Your task to perform on an android device: make emails show in primary in the gmail app Image 0: 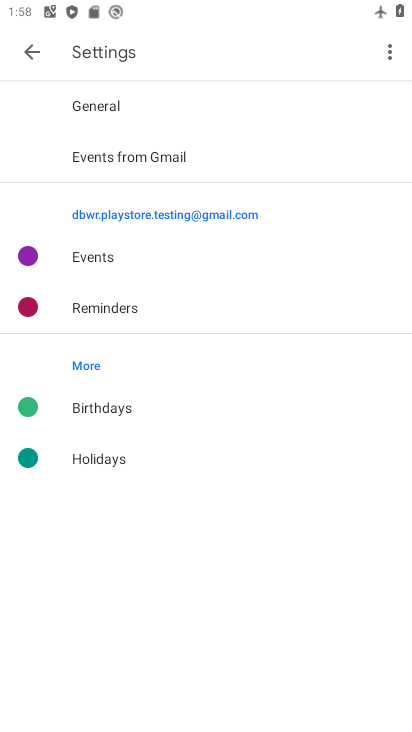
Step 0: press home button
Your task to perform on an android device: make emails show in primary in the gmail app Image 1: 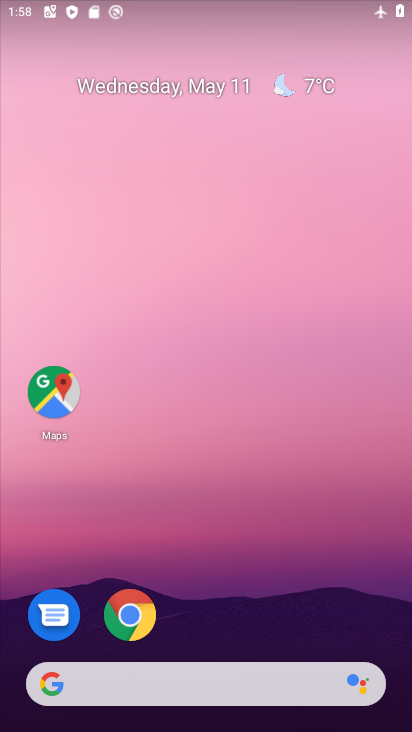
Step 1: drag from (292, 605) to (324, 128)
Your task to perform on an android device: make emails show in primary in the gmail app Image 2: 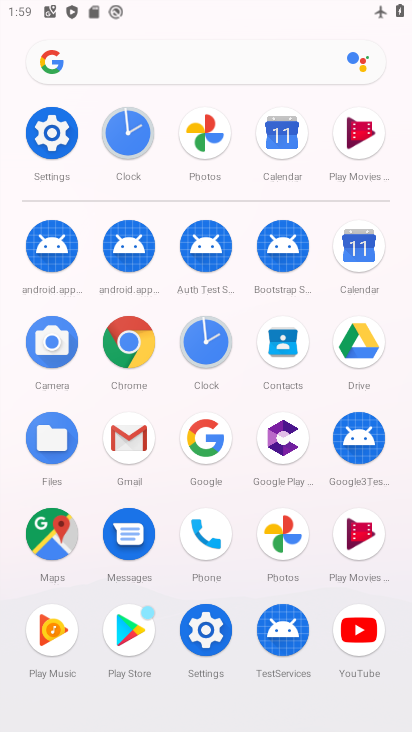
Step 2: click (119, 444)
Your task to perform on an android device: make emails show in primary in the gmail app Image 3: 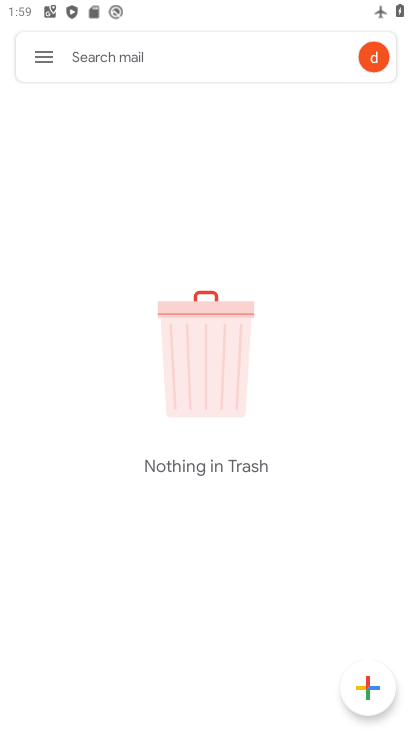
Step 3: click (43, 54)
Your task to perform on an android device: make emails show in primary in the gmail app Image 4: 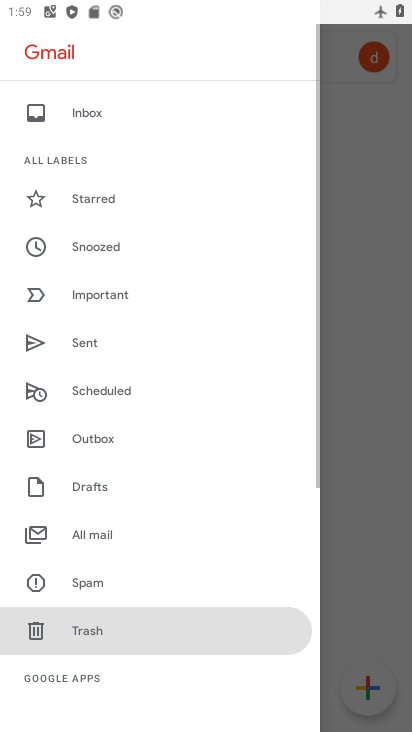
Step 4: drag from (155, 617) to (248, 248)
Your task to perform on an android device: make emails show in primary in the gmail app Image 5: 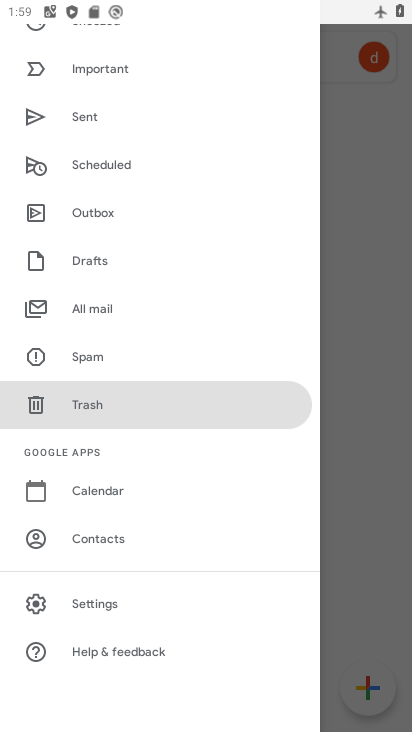
Step 5: click (128, 610)
Your task to perform on an android device: make emails show in primary in the gmail app Image 6: 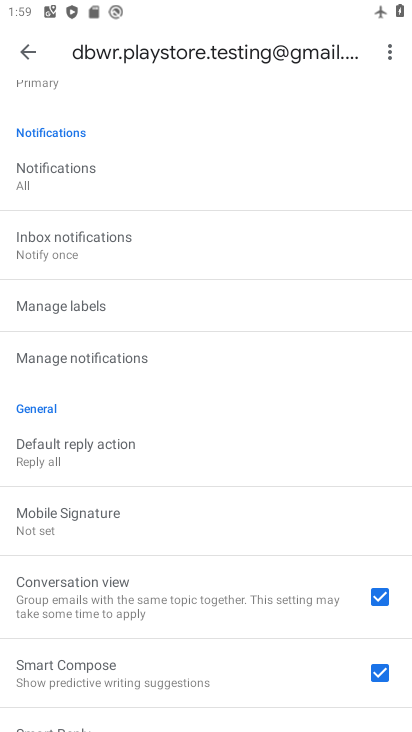
Step 6: drag from (244, 643) to (266, 692)
Your task to perform on an android device: make emails show in primary in the gmail app Image 7: 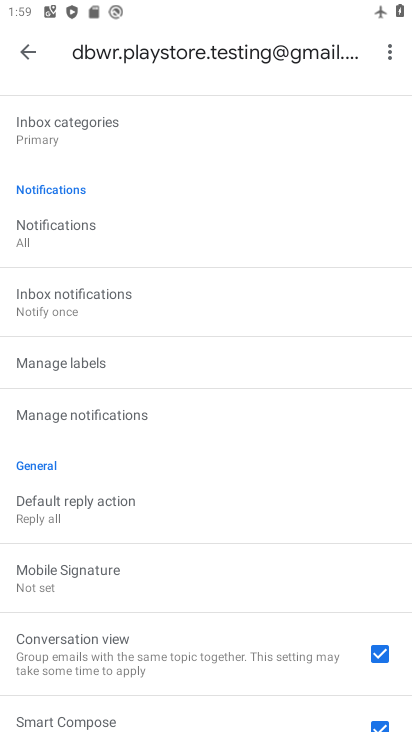
Step 7: drag from (230, 136) to (234, 603)
Your task to perform on an android device: make emails show in primary in the gmail app Image 8: 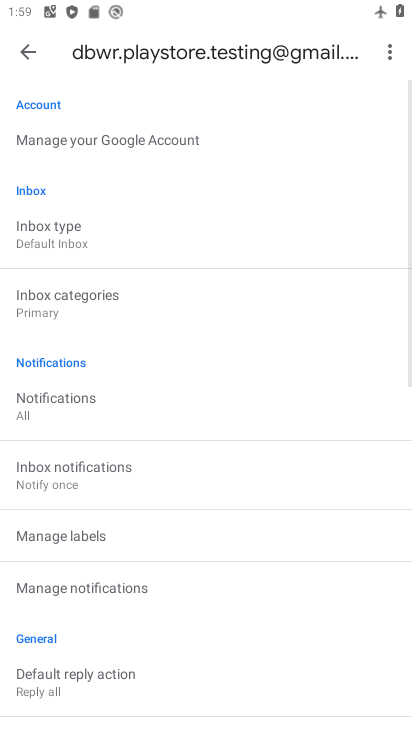
Step 8: click (63, 310)
Your task to perform on an android device: make emails show in primary in the gmail app Image 9: 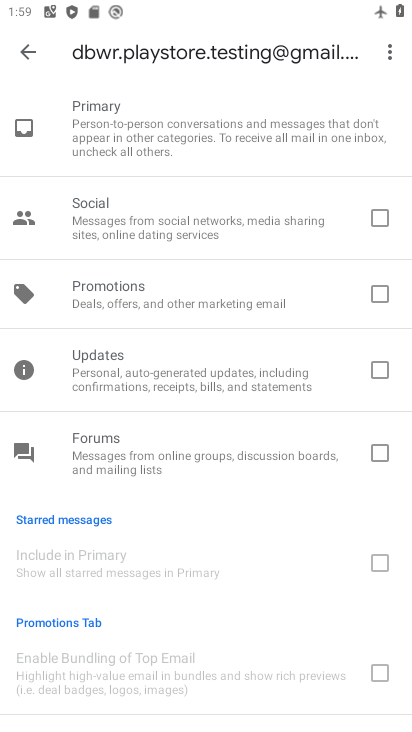
Step 9: task complete